Your task to perform on an android device: Go to Amazon Image 0: 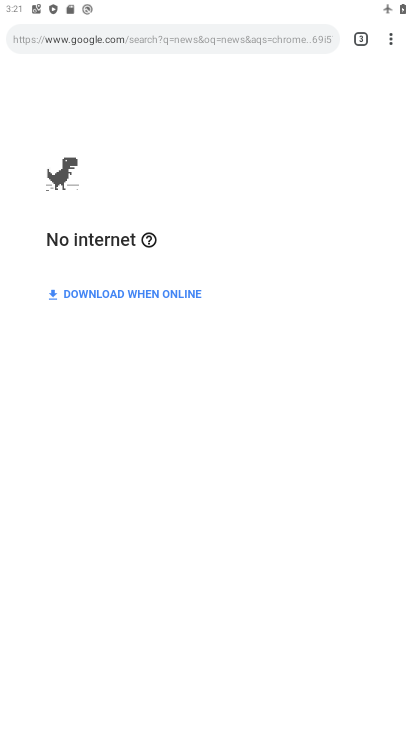
Step 0: press home button
Your task to perform on an android device: Go to Amazon Image 1: 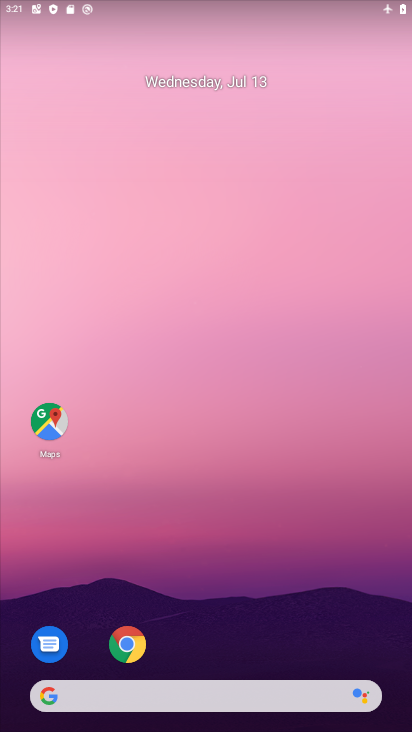
Step 1: drag from (354, 574) to (316, 30)
Your task to perform on an android device: Go to Amazon Image 2: 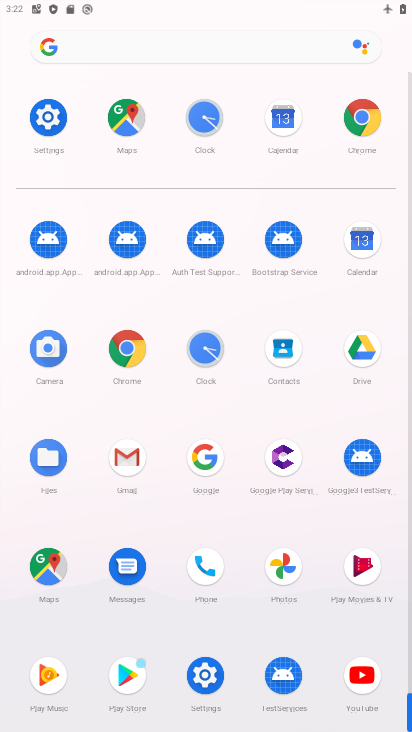
Step 2: click (365, 118)
Your task to perform on an android device: Go to Amazon Image 3: 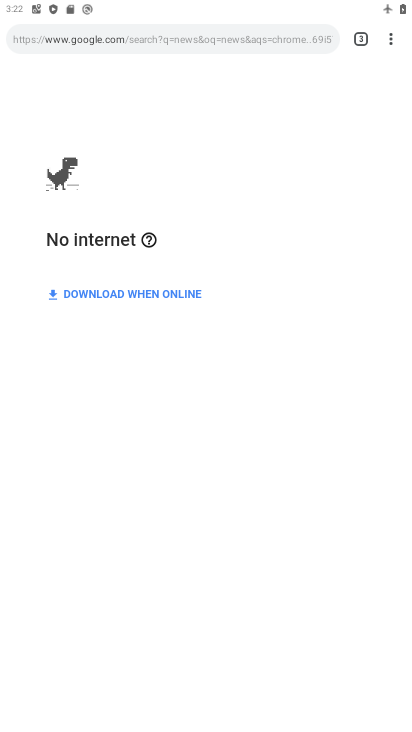
Step 3: click (211, 43)
Your task to perform on an android device: Go to Amazon Image 4: 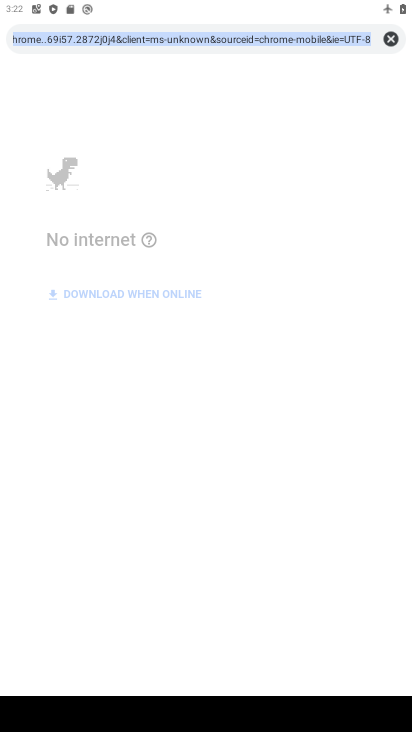
Step 4: type "amazon.com"
Your task to perform on an android device: Go to Amazon Image 5: 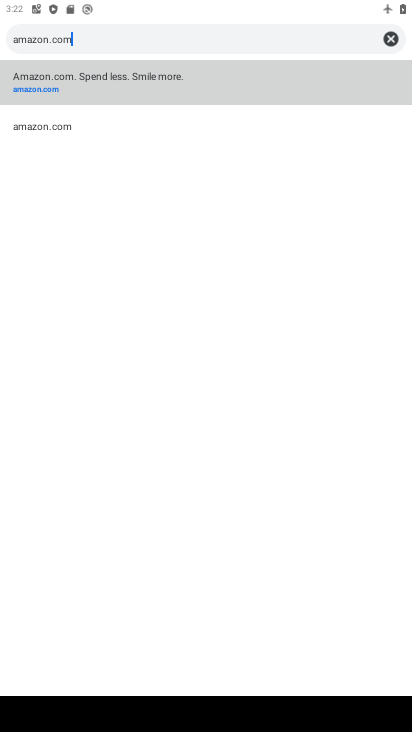
Step 5: click (53, 89)
Your task to perform on an android device: Go to Amazon Image 6: 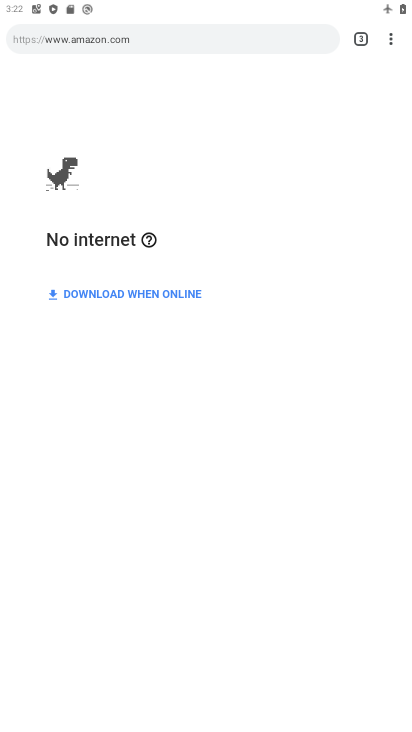
Step 6: task complete